Your task to perform on an android device: change the clock display to show seconds Image 0: 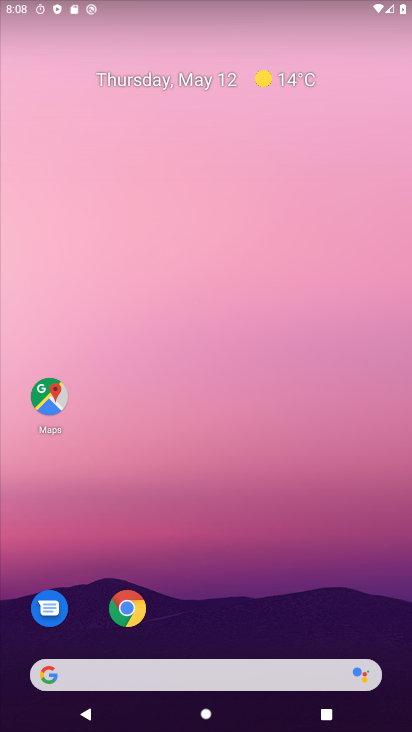
Step 0: drag from (297, 620) to (280, 94)
Your task to perform on an android device: change the clock display to show seconds Image 1: 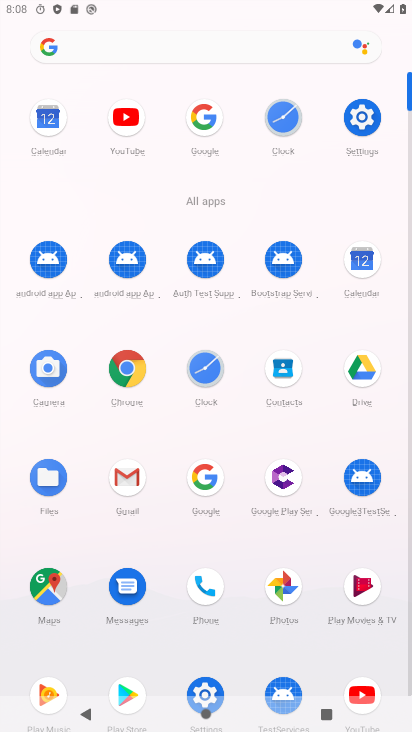
Step 1: click (199, 377)
Your task to perform on an android device: change the clock display to show seconds Image 2: 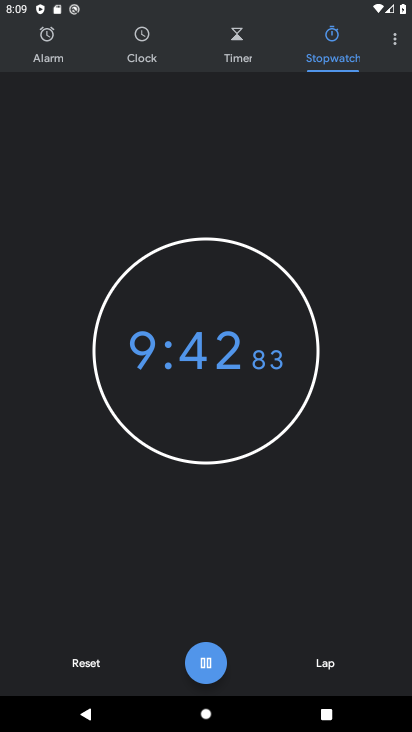
Step 2: click (398, 41)
Your task to perform on an android device: change the clock display to show seconds Image 3: 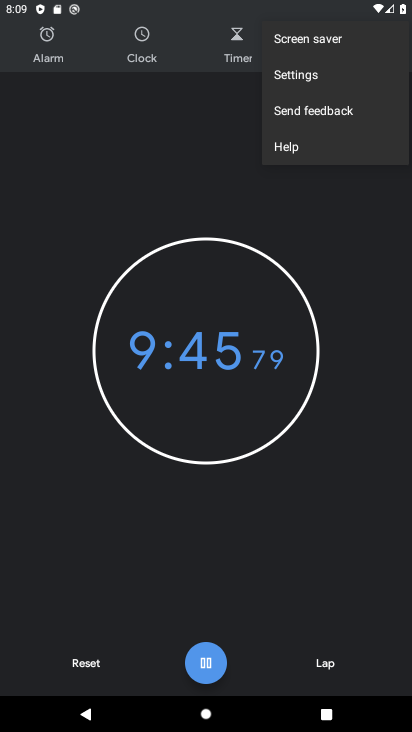
Step 3: click (288, 78)
Your task to perform on an android device: change the clock display to show seconds Image 4: 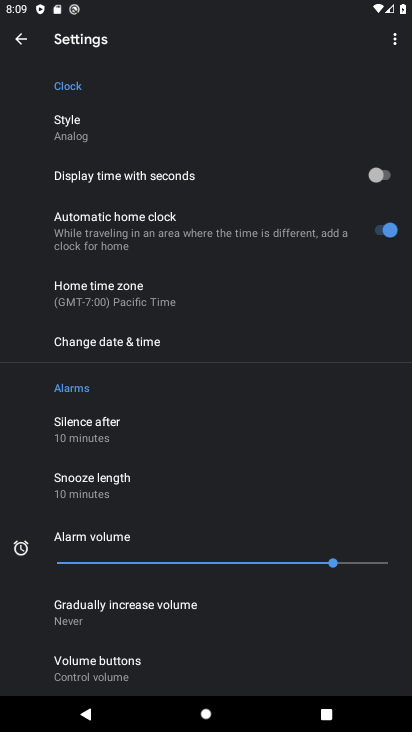
Step 4: click (386, 177)
Your task to perform on an android device: change the clock display to show seconds Image 5: 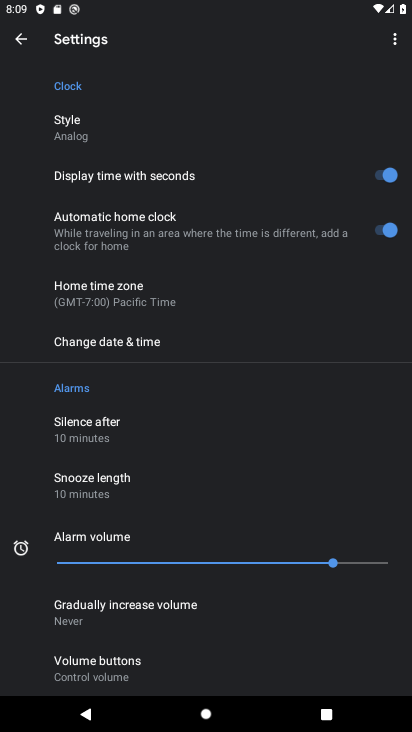
Step 5: task complete